Your task to perform on an android device: Go to calendar. Show me events next week Image 0: 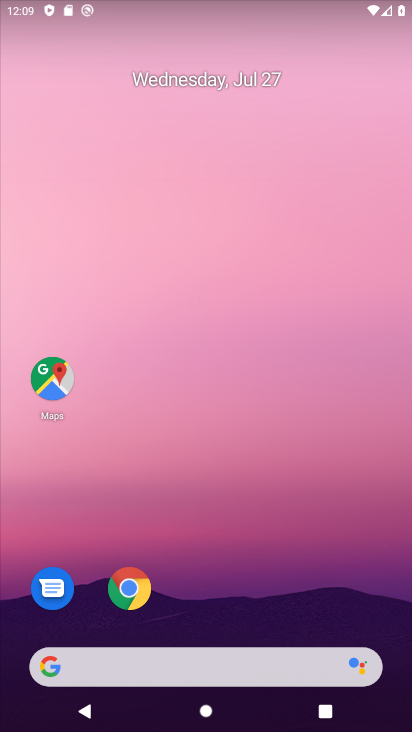
Step 0: drag from (40, 698) to (143, 312)
Your task to perform on an android device: Go to calendar. Show me events next week Image 1: 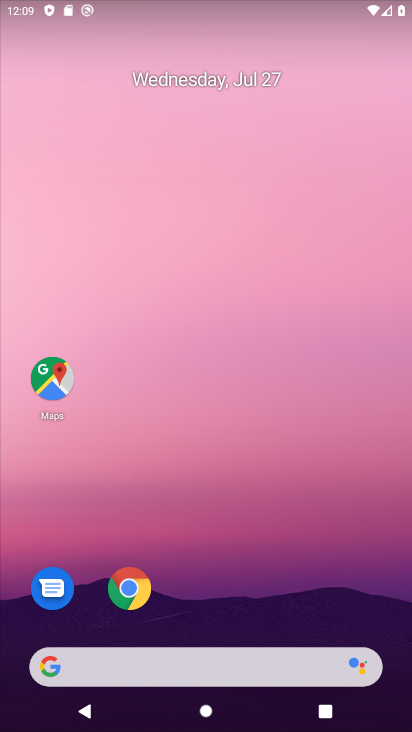
Step 1: drag from (57, 659) to (198, 98)
Your task to perform on an android device: Go to calendar. Show me events next week Image 2: 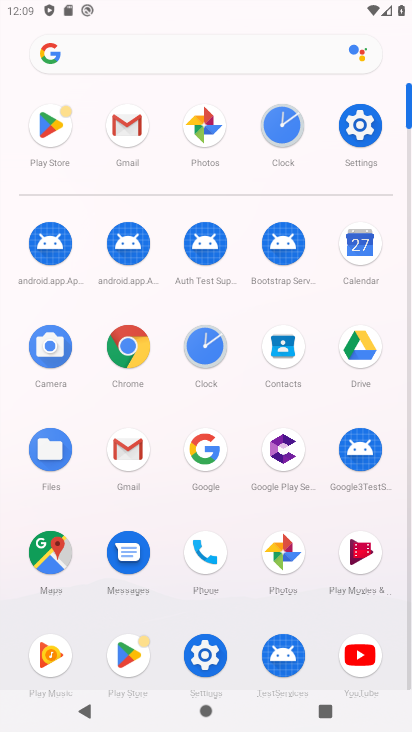
Step 2: click (365, 256)
Your task to perform on an android device: Go to calendar. Show me events next week Image 3: 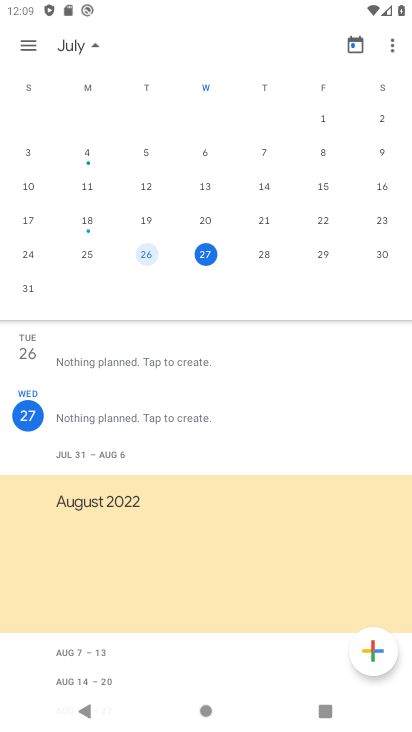
Step 3: task complete